Your task to perform on an android device: open chrome privacy settings Image 0: 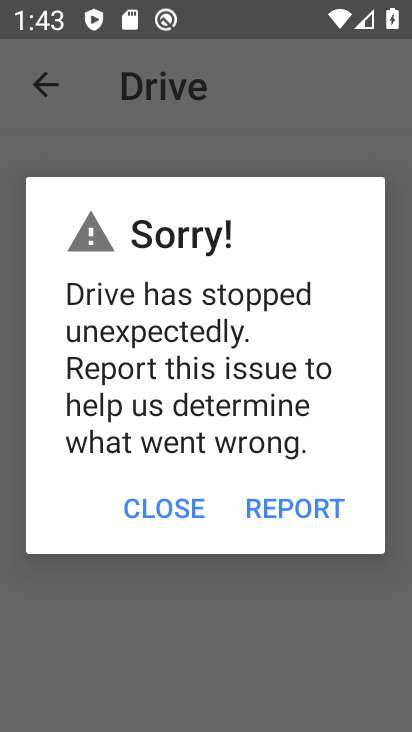
Step 0: press home button
Your task to perform on an android device: open chrome privacy settings Image 1: 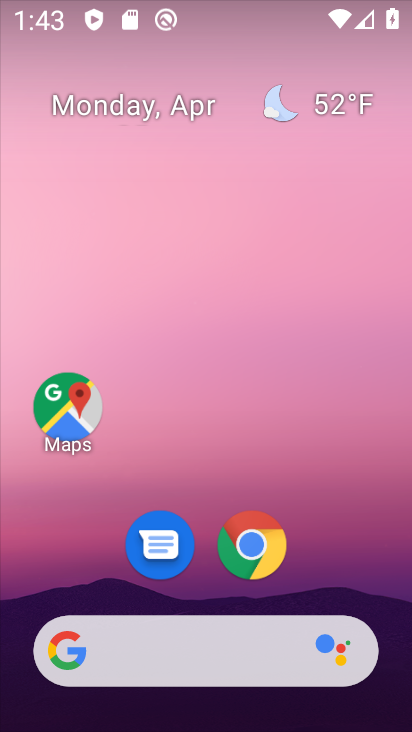
Step 1: click (251, 548)
Your task to perform on an android device: open chrome privacy settings Image 2: 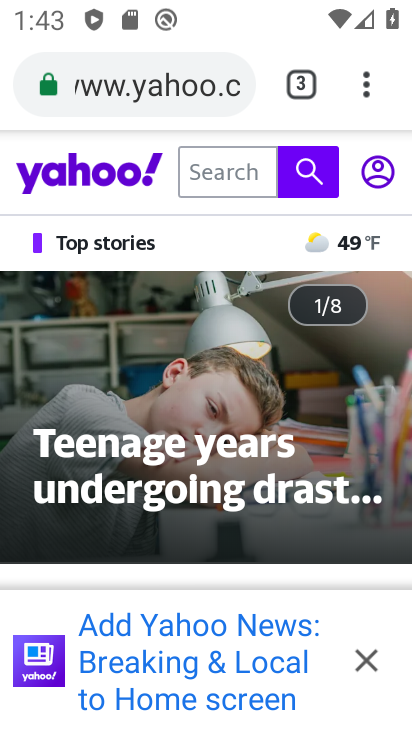
Step 2: drag from (367, 88) to (77, 582)
Your task to perform on an android device: open chrome privacy settings Image 3: 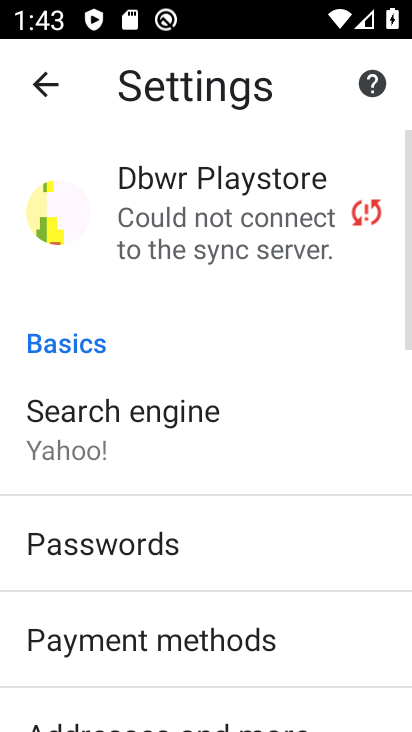
Step 3: drag from (142, 674) to (177, 319)
Your task to perform on an android device: open chrome privacy settings Image 4: 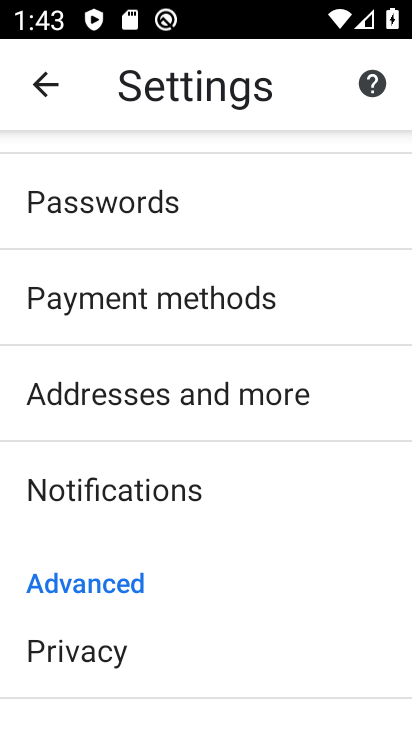
Step 4: click (102, 641)
Your task to perform on an android device: open chrome privacy settings Image 5: 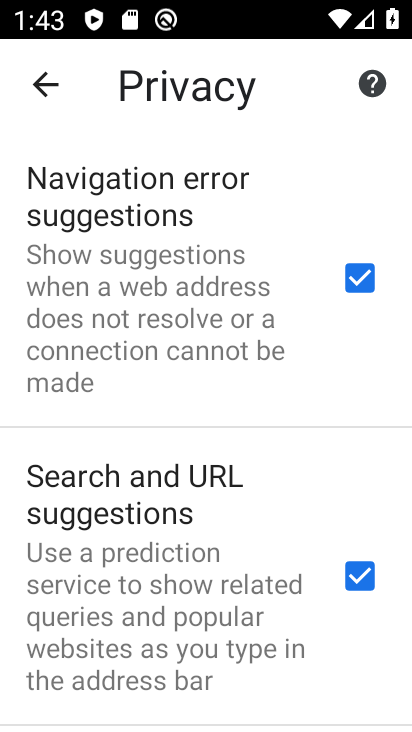
Step 5: task complete